Your task to perform on an android device: Empty the shopping cart on costco. Add logitech g pro to the cart on costco, then select checkout. Image 0: 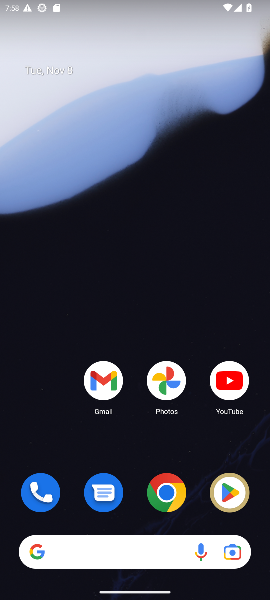
Step 0: click (167, 500)
Your task to perform on an android device: Empty the shopping cart on costco. Add logitech g pro to the cart on costco, then select checkout. Image 1: 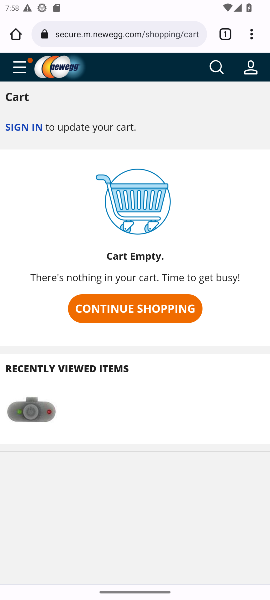
Step 1: click (101, 36)
Your task to perform on an android device: Empty the shopping cart on costco. Add logitech g pro to the cart on costco, then select checkout. Image 2: 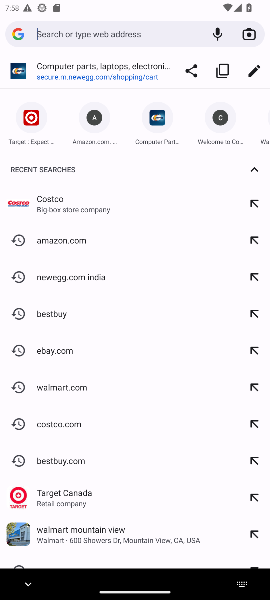
Step 2: type "costco"
Your task to perform on an android device: Empty the shopping cart on costco. Add logitech g pro to the cart on costco, then select checkout. Image 3: 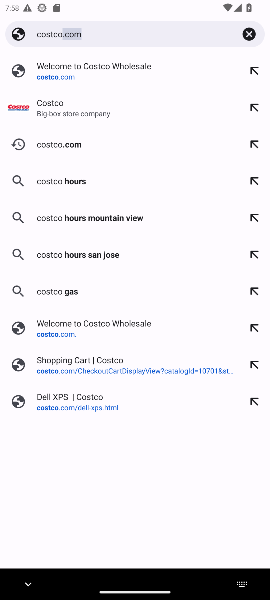
Step 3: click (92, 77)
Your task to perform on an android device: Empty the shopping cart on costco. Add logitech g pro to the cart on costco, then select checkout. Image 4: 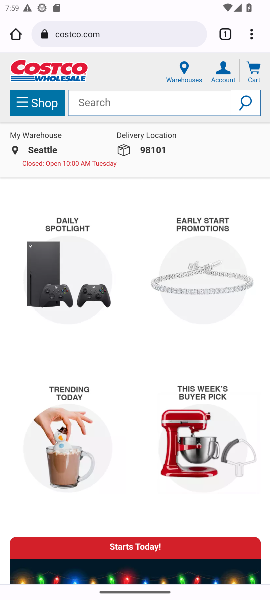
Step 4: click (254, 79)
Your task to perform on an android device: Empty the shopping cart on costco. Add logitech g pro to the cart on costco, then select checkout. Image 5: 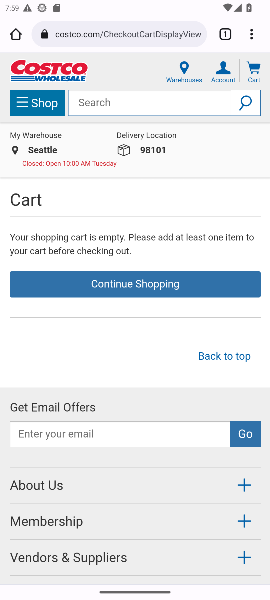
Step 5: click (163, 105)
Your task to perform on an android device: Empty the shopping cart on costco. Add logitech g pro to the cart on costco, then select checkout. Image 6: 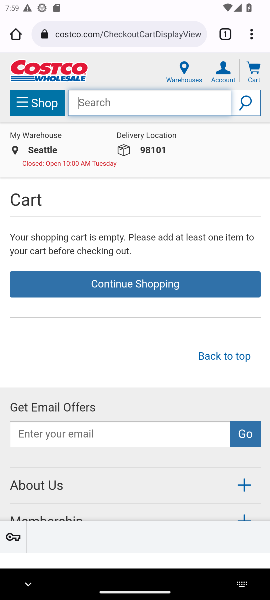
Step 6: type "logitech g pro"
Your task to perform on an android device: Empty the shopping cart on costco. Add logitech g pro to the cart on costco, then select checkout. Image 7: 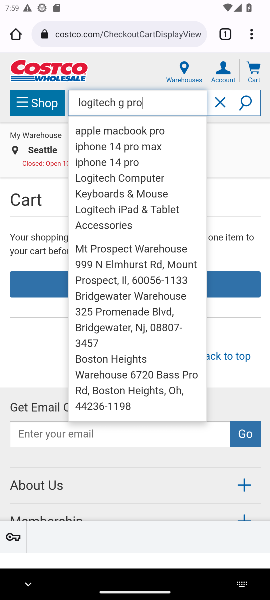
Step 7: press home button
Your task to perform on an android device: Empty the shopping cart on costco. Add logitech g pro to the cart on costco, then select checkout. Image 8: 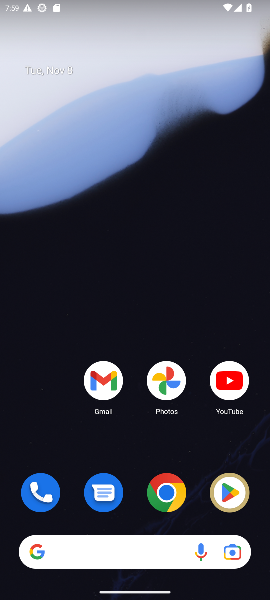
Step 8: click (175, 500)
Your task to perform on an android device: Empty the shopping cart on costco. Add logitech g pro to the cart on costco, then select checkout. Image 9: 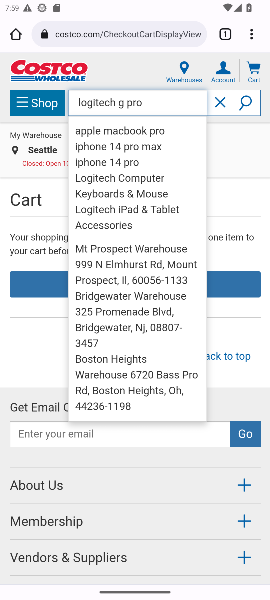
Step 9: press enter
Your task to perform on an android device: Empty the shopping cart on costco. Add logitech g pro to the cart on costco, then select checkout. Image 10: 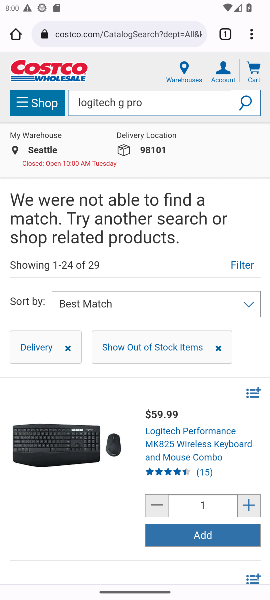
Step 10: click (187, 543)
Your task to perform on an android device: Empty the shopping cart on costco. Add logitech g pro to the cart on costco, then select checkout. Image 11: 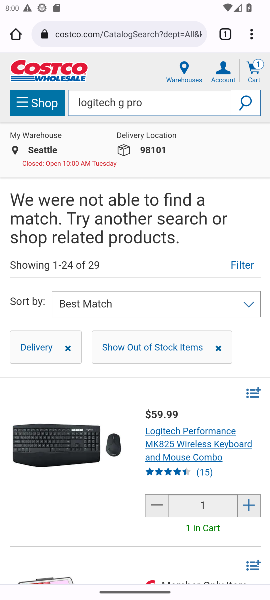
Step 11: click (251, 73)
Your task to perform on an android device: Empty the shopping cart on costco. Add logitech g pro to the cart on costco, then select checkout. Image 12: 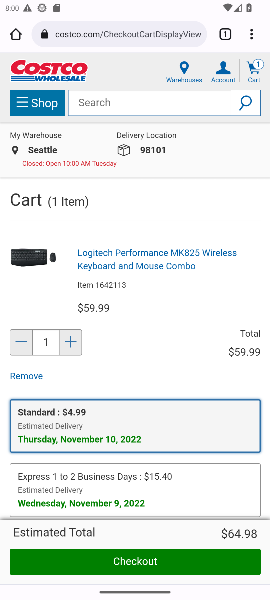
Step 12: click (128, 565)
Your task to perform on an android device: Empty the shopping cart on costco. Add logitech g pro to the cart on costco, then select checkout. Image 13: 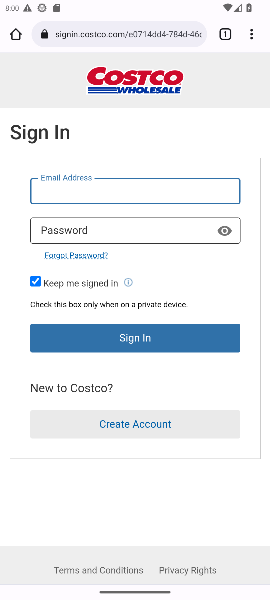
Step 13: task complete